Your task to perform on an android device: Play the last video I watched on Youtube Image 0: 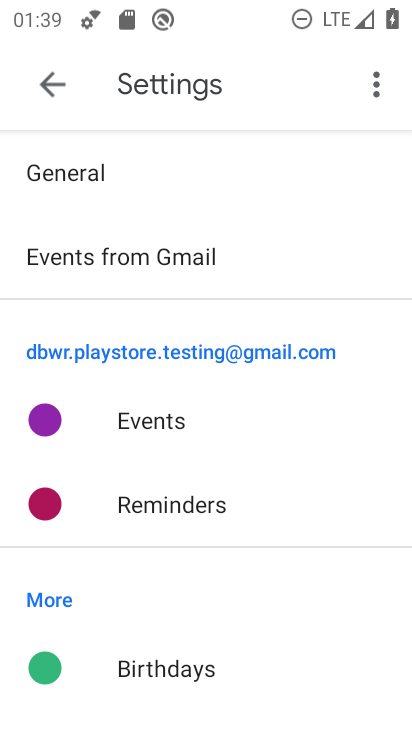
Step 0: press home button
Your task to perform on an android device: Play the last video I watched on Youtube Image 1: 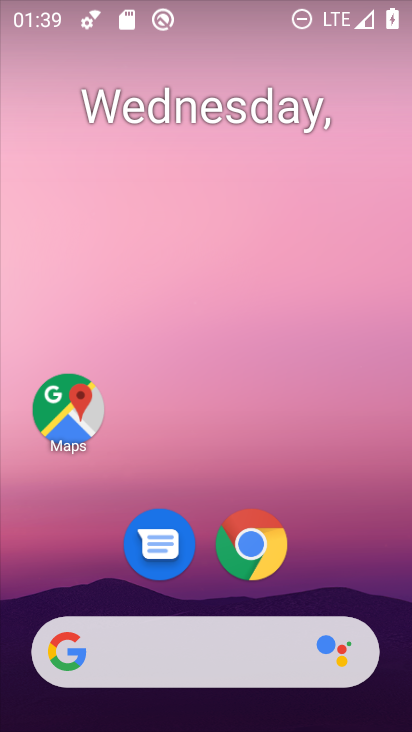
Step 1: drag from (325, 581) to (317, 63)
Your task to perform on an android device: Play the last video I watched on Youtube Image 2: 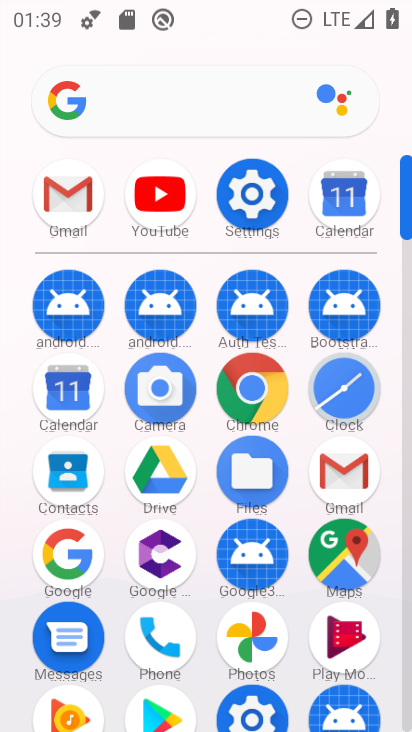
Step 2: drag from (201, 673) to (201, 316)
Your task to perform on an android device: Play the last video I watched on Youtube Image 3: 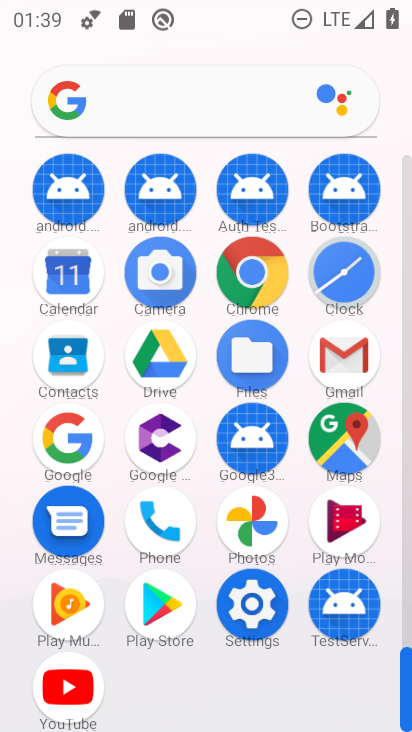
Step 3: click (58, 684)
Your task to perform on an android device: Play the last video I watched on Youtube Image 4: 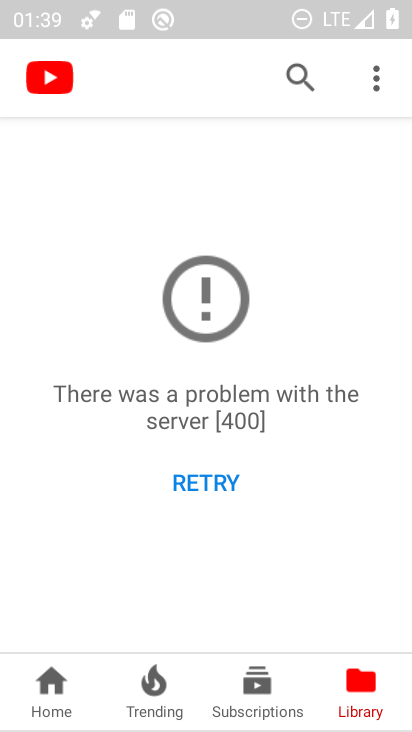
Step 4: click (212, 478)
Your task to perform on an android device: Play the last video I watched on Youtube Image 5: 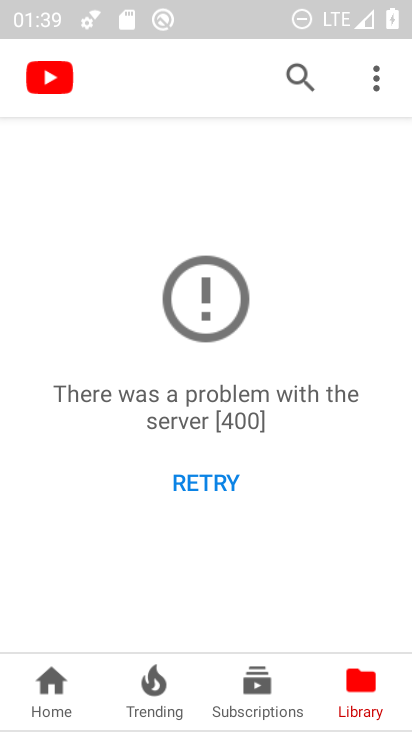
Step 5: click (212, 478)
Your task to perform on an android device: Play the last video I watched on Youtube Image 6: 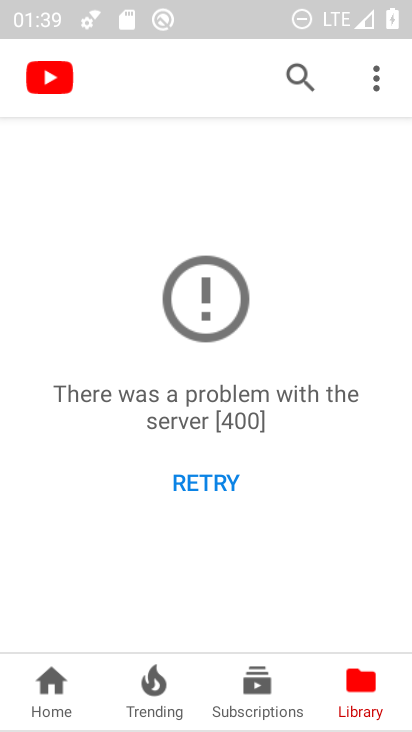
Step 6: task complete